Your task to perform on an android device: Open Chrome and go to settings Image 0: 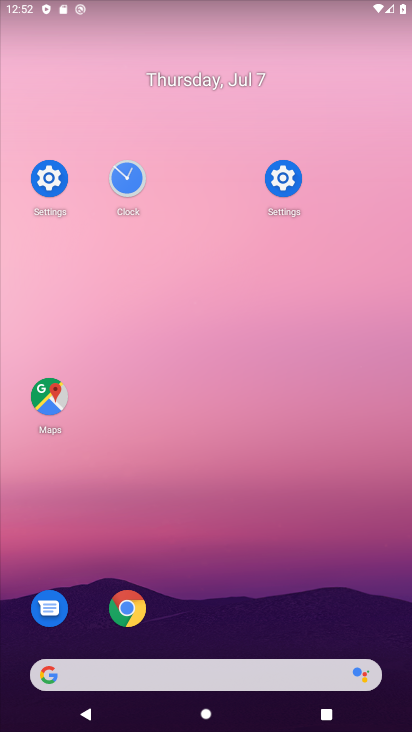
Step 0: click (120, 611)
Your task to perform on an android device: Open Chrome and go to settings Image 1: 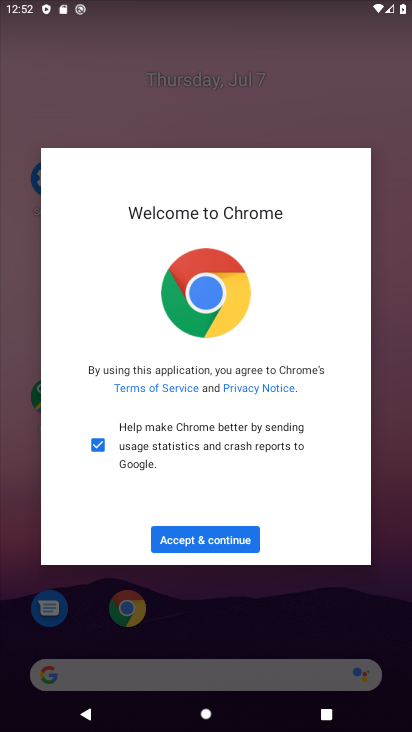
Step 1: click (235, 547)
Your task to perform on an android device: Open Chrome and go to settings Image 2: 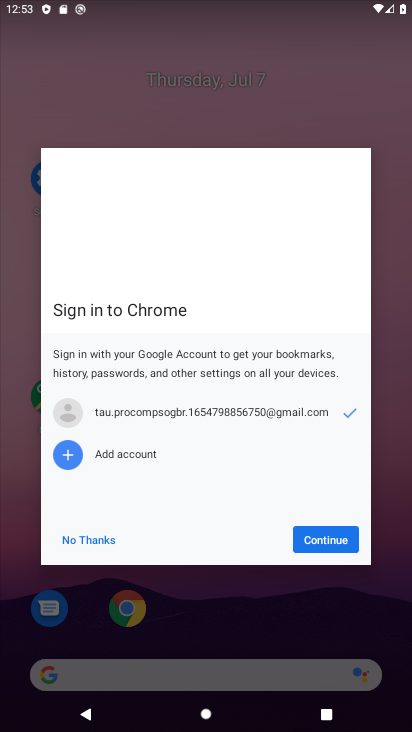
Step 2: click (334, 539)
Your task to perform on an android device: Open Chrome and go to settings Image 3: 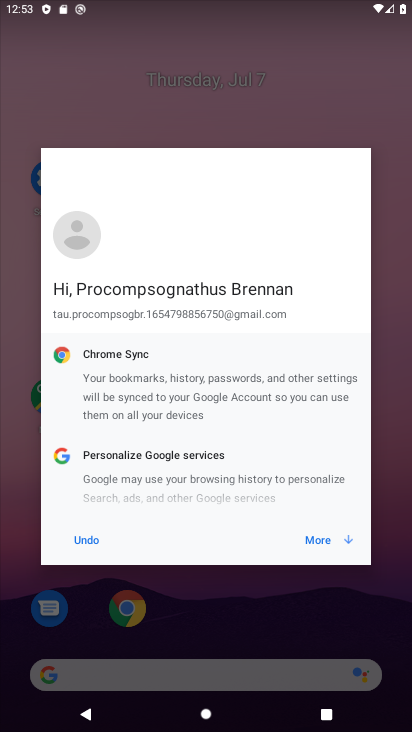
Step 3: click (320, 536)
Your task to perform on an android device: Open Chrome and go to settings Image 4: 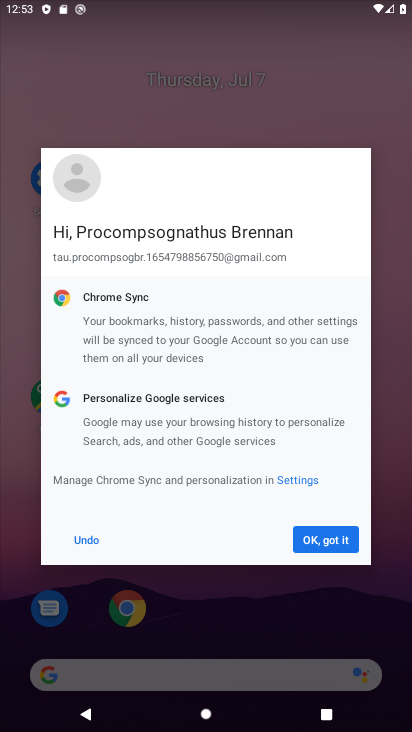
Step 4: click (320, 536)
Your task to perform on an android device: Open Chrome and go to settings Image 5: 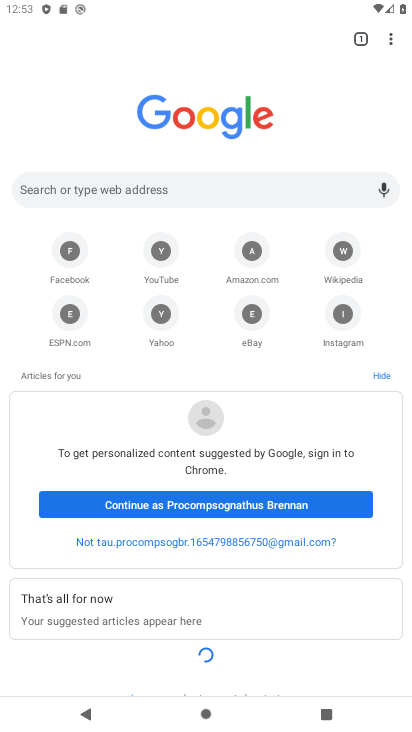
Step 5: click (389, 40)
Your task to perform on an android device: Open Chrome and go to settings Image 6: 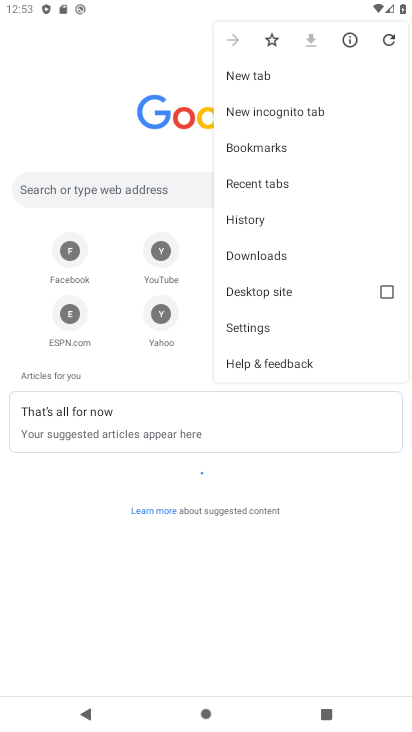
Step 6: click (264, 322)
Your task to perform on an android device: Open Chrome and go to settings Image 7: 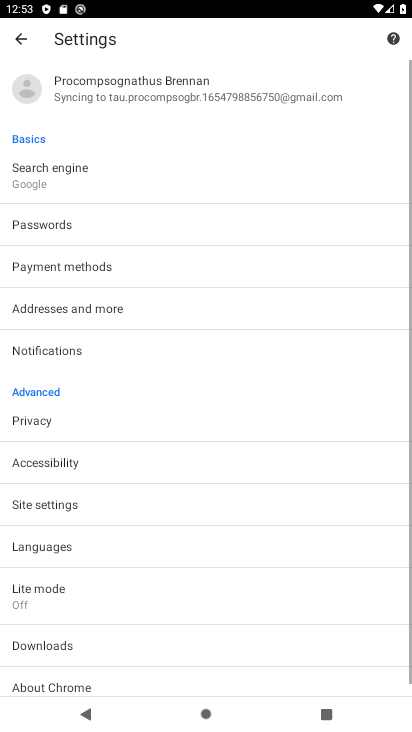
Step 7: task complete